Your task to perform on an android device: snooze an email in the gmail app Image 0: 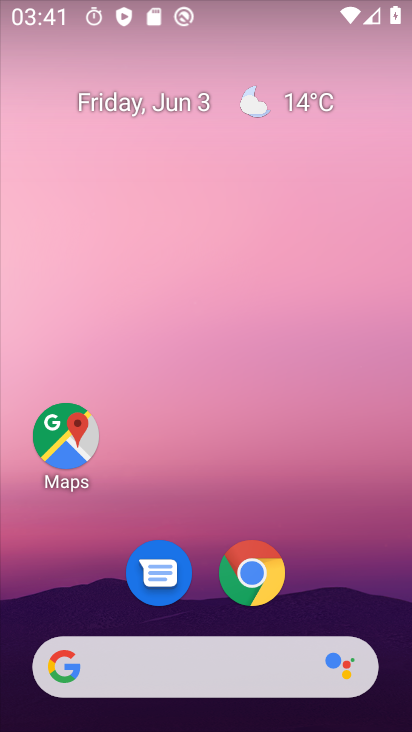
Step 0: drag from (229, 583) to (222, 57)
Your task to perform on an android device: snooze an email in the gmail app Image 1: 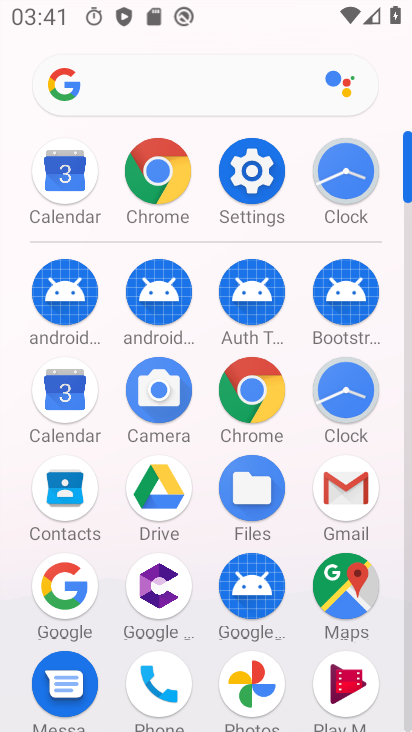
Step 1: click (346, 486)
Your task to perform on an android device: snooze an email in the gmail app Image 2: 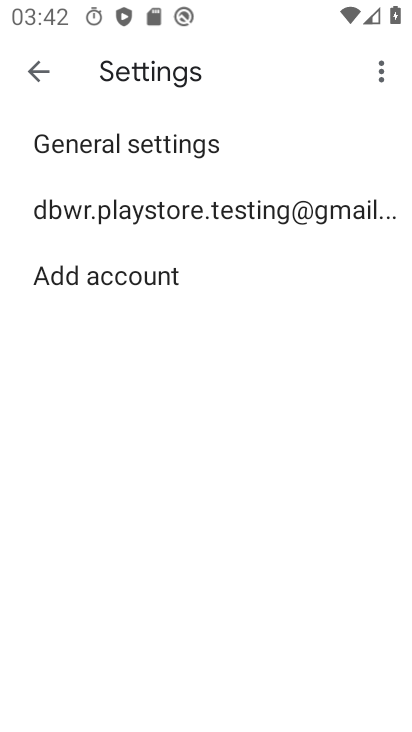
Step 2: press back button
Your task to perform on an android device: snooze an email in the gmail app Image 3: 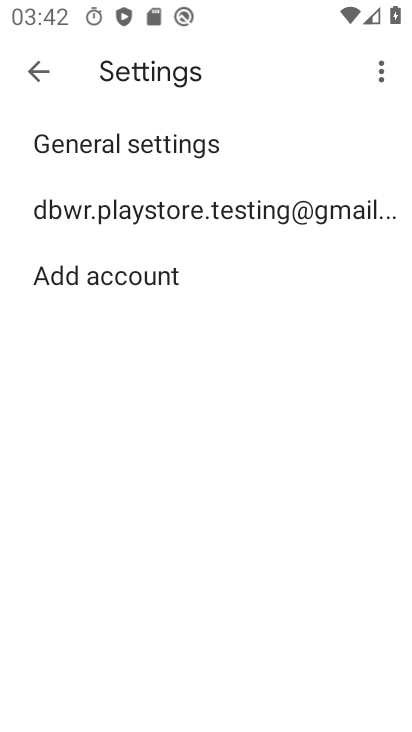
Step 3: press back button
Your task to perform on an android device: snooze an email in the gmail app Image 4: 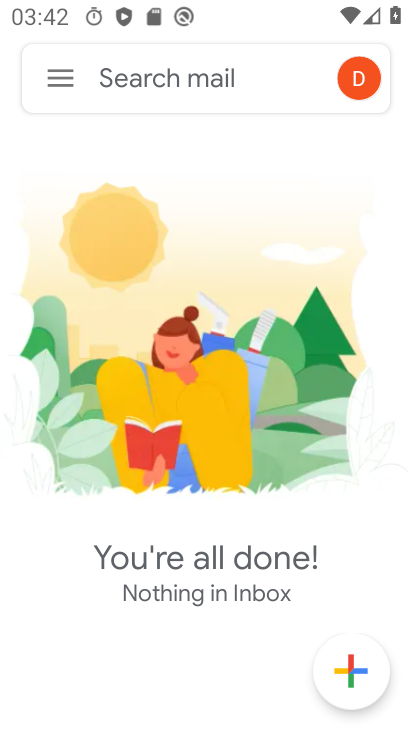
Step 4: click (59, 66)
Your task to perform on an android device: snooze an email in the gmail app Image 5: 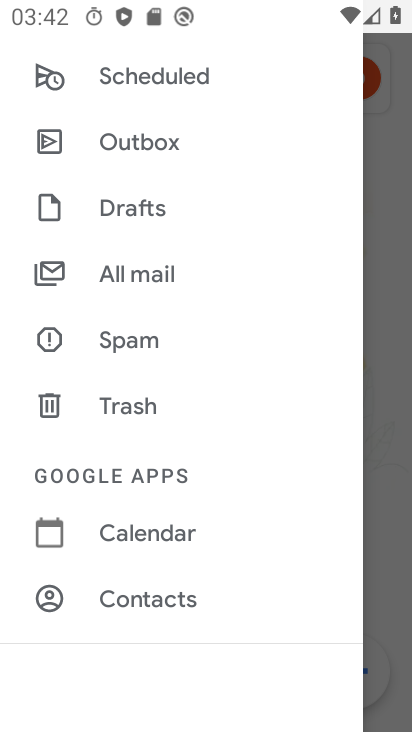
Step 5: drag from (144, 215) to (178, 613)
Your task to perform on an android device: snooze an email in the gmail app Image 6: 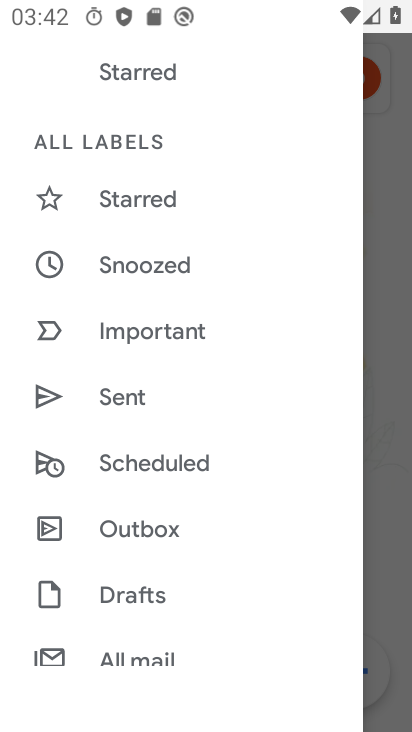
Step 6: click (197, 279)
Your task to perform on an android device: snooze an email in the gmail app Image 7: 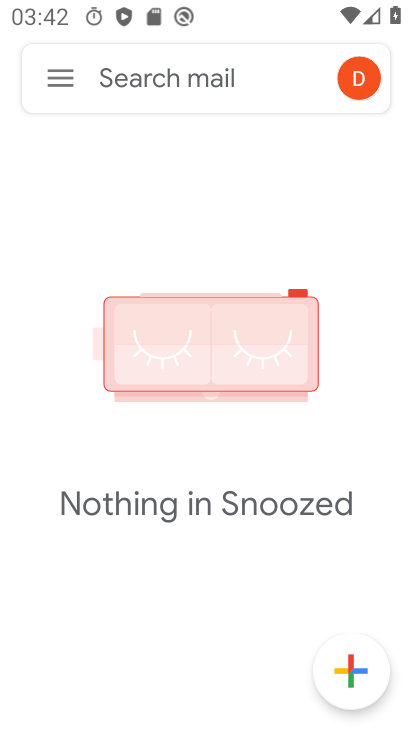
Step 7: task complete